Your task to perform on an android device: Add "panasonic triple a" to the cart on bestbuy.com Image 0: 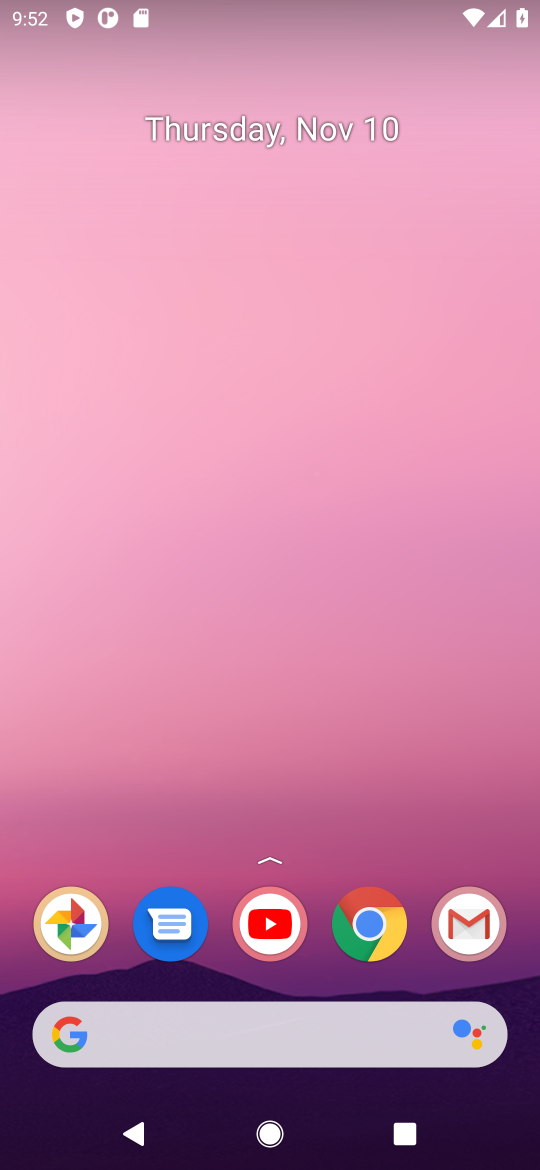
Step 0: click (374, 939)
Your task to perform on an android device: Add "panasonic triple a" to the cart on bestbuy.com Image 1: 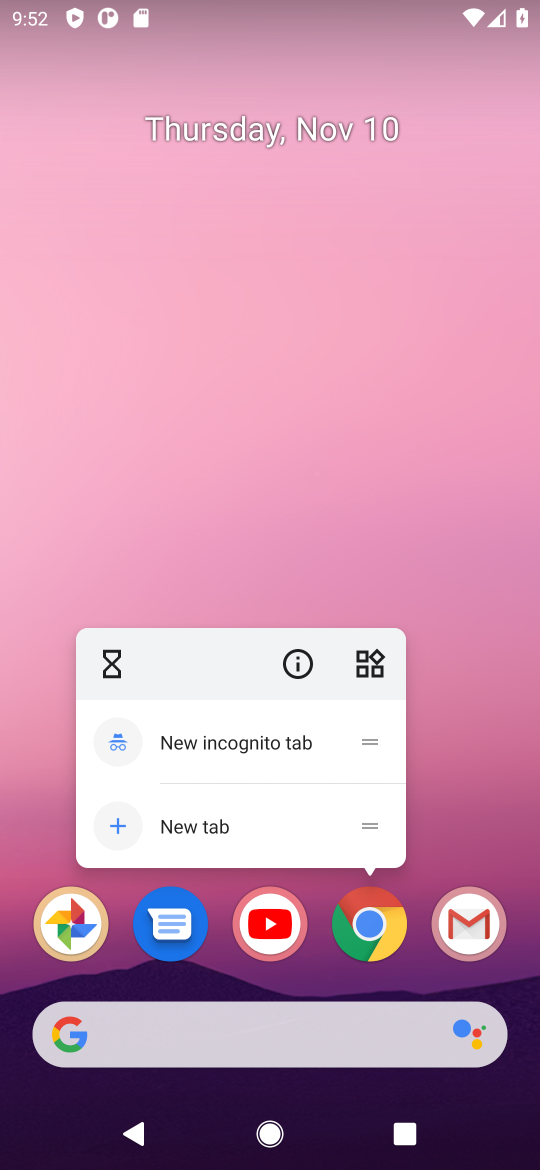
Step 1: click (374, 939)
Your task to perform on an android device: Add "panasonic triple a" to the cart on bestbuy.com Image 2: 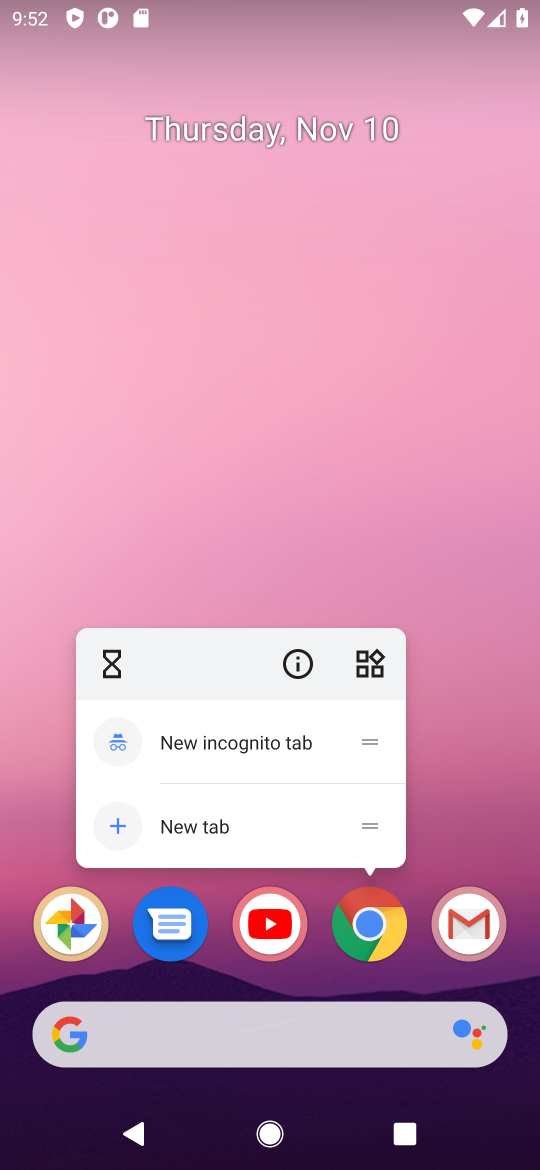
Step 2: click (374, 939)
Your task to perform on an android device: Add "panasonic triple a" to the cart on bestbuy.com Image 3: 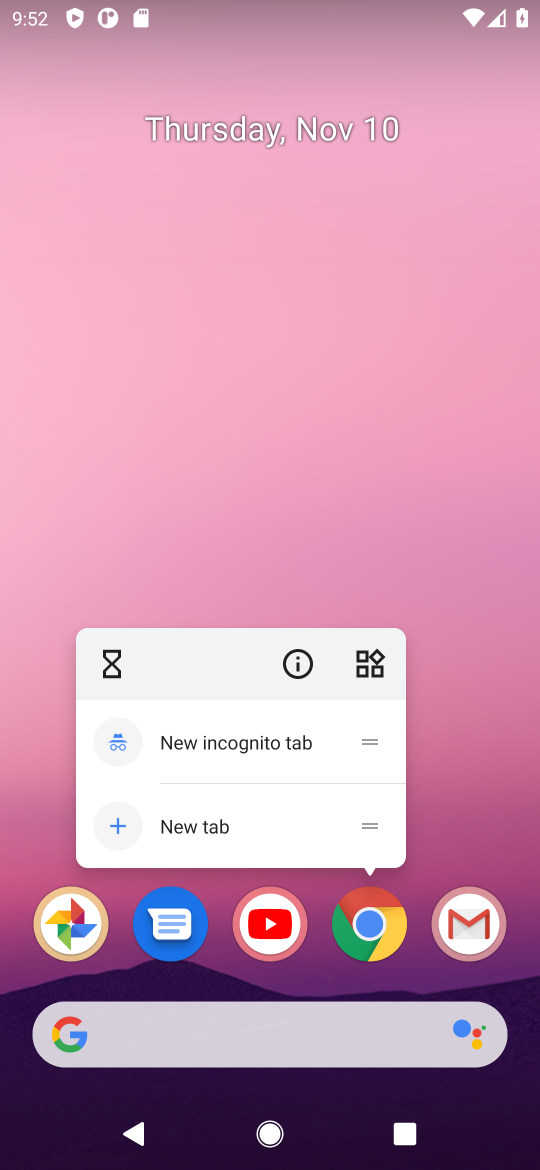
Step 3: click (374, 939)
Your task to perform on an android device: Add "panasonic triple a" to the cart on bestbuy.com Image 4: 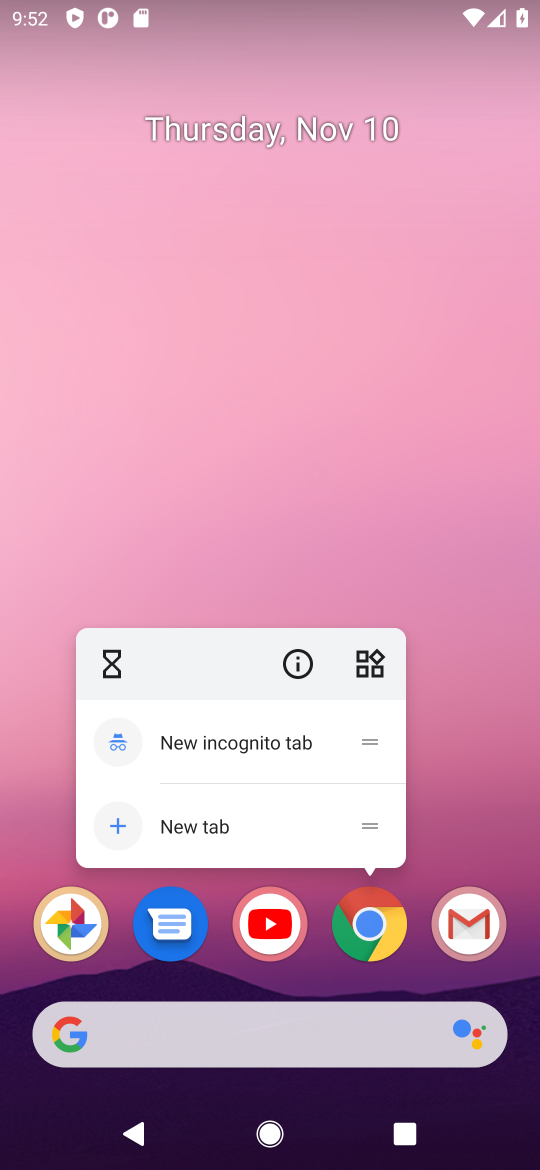
Step 4: click (370, 938)
Your task to perform on an android device: Add "panasonic triple a" to the cart on bestbuy.com Image 5: 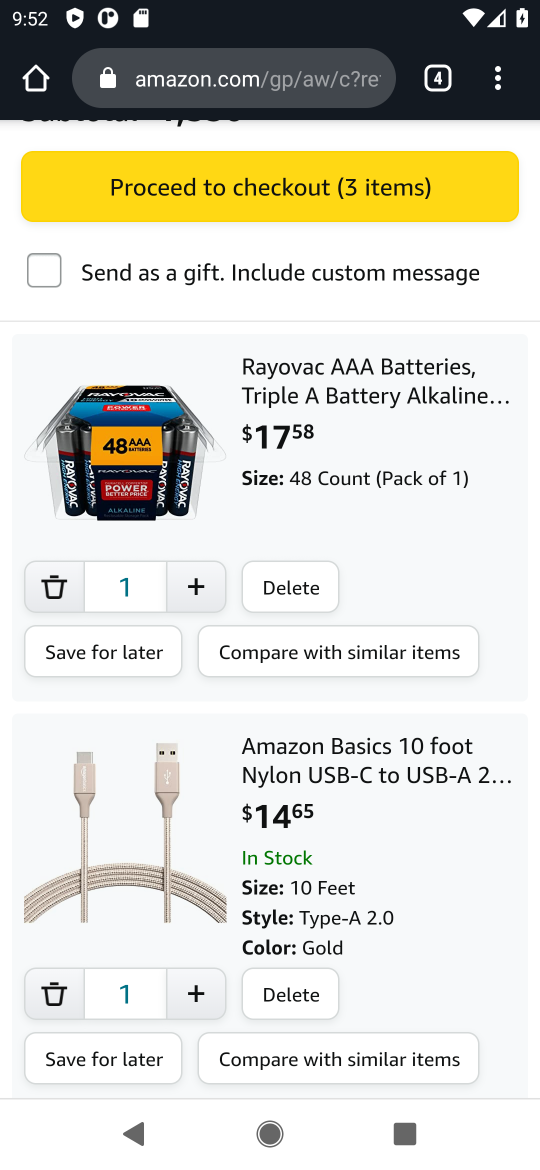
Step 5: click (191, 92)
Your task to perform on an android device: Add "panasonic triple a" to the cart on bestbuy.com Image 6: 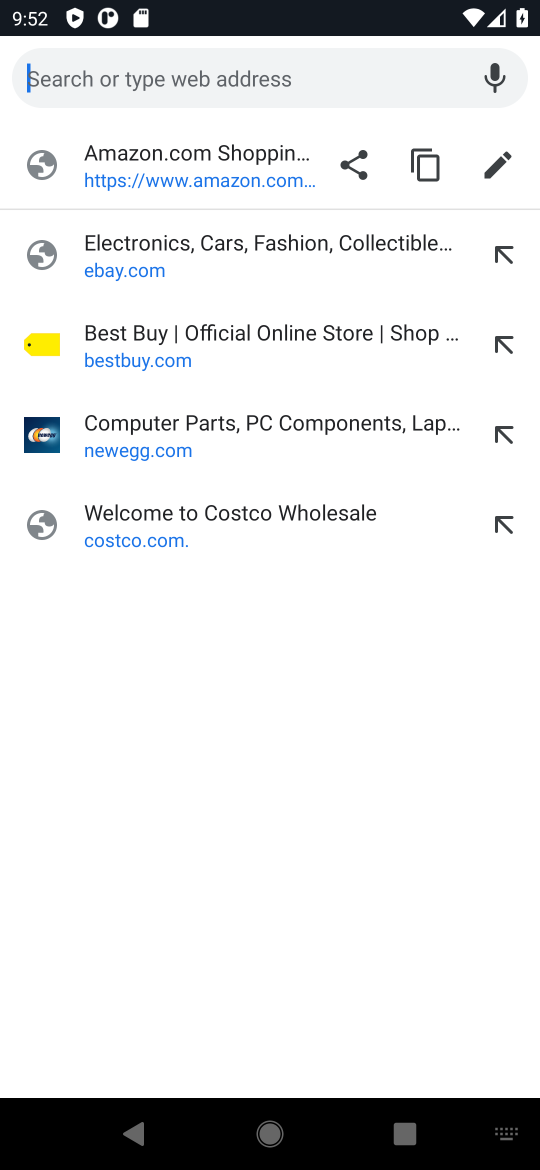
Step 6: click (117, 346)
Your task to perform on an android device: Add "panasonic triple a" to the cart on bestbuy.com Image 7: 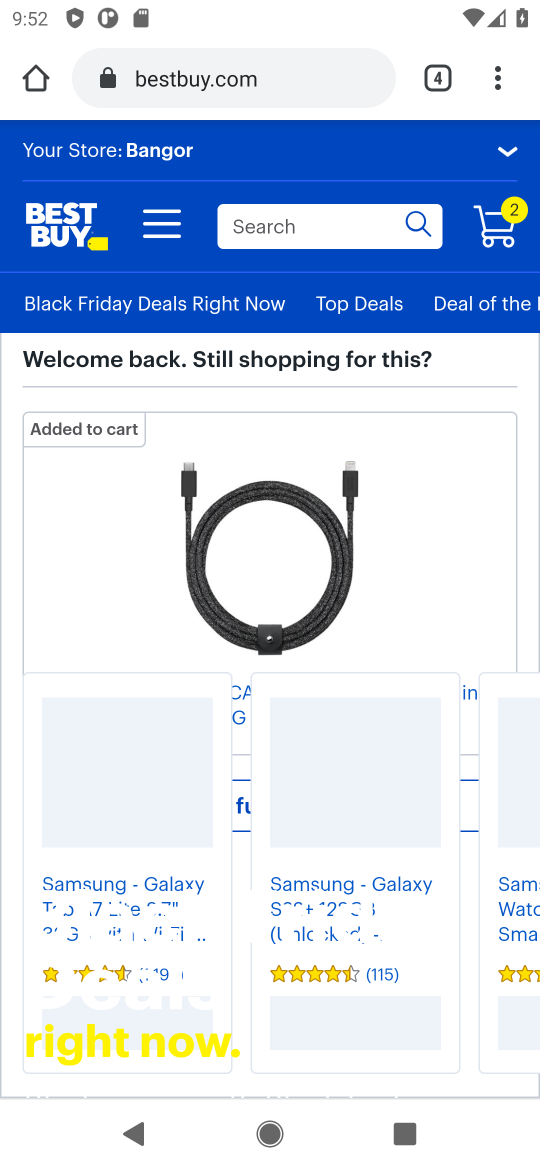
Step 7: click (254, 242)
Your task to perform on an android device: Add "panasonic triple a" to the cart on bestbuy.com Image 8: 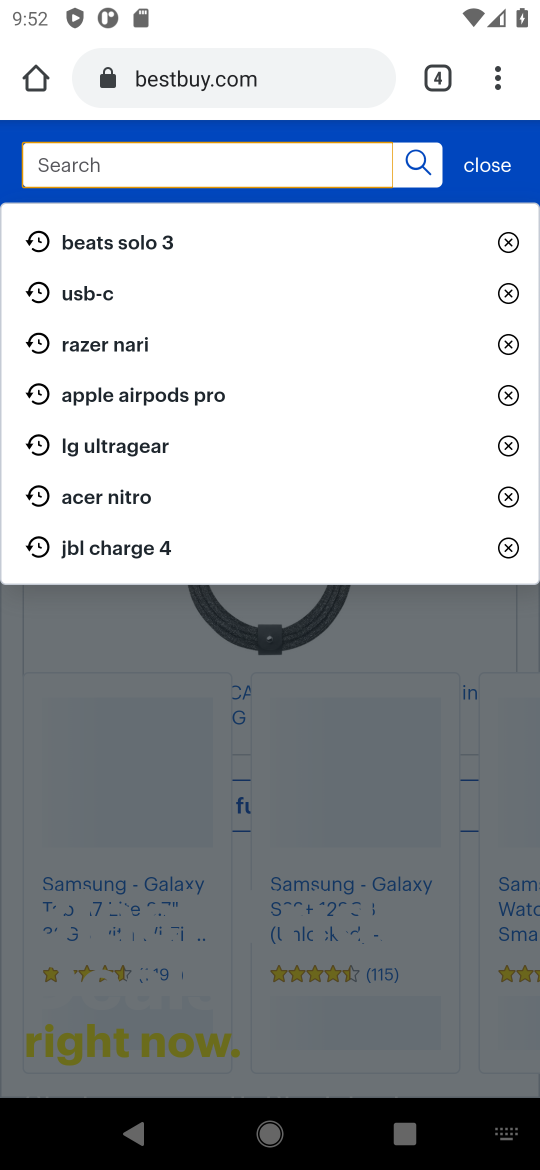
Step 8: type "panasonic triple a"
Your task to perform on an android device: Add "panasonic triple a" to the cart on bestbuy.com Image 9: 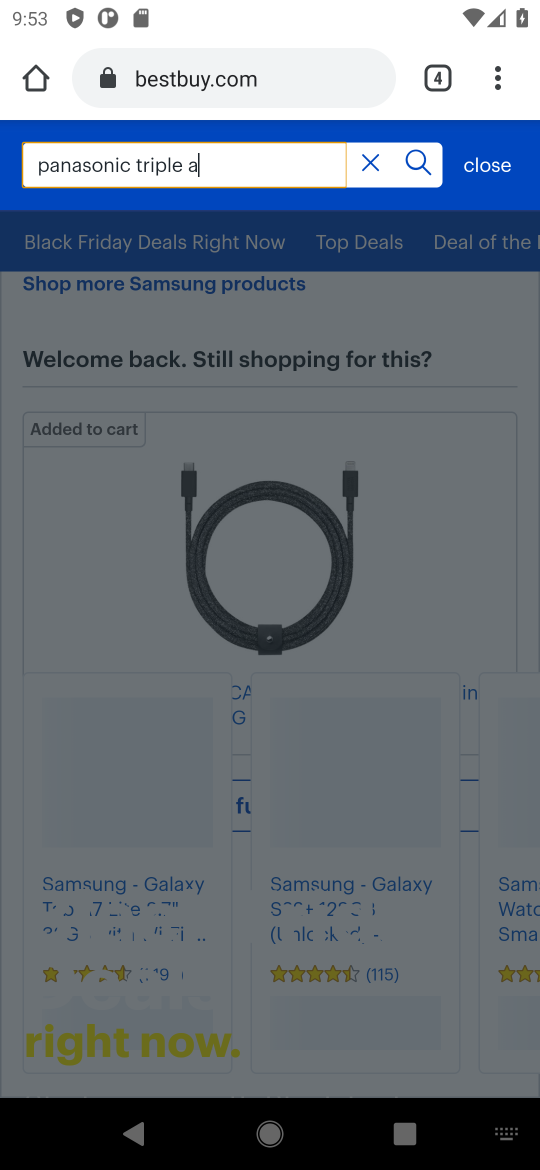
Step 9: click (406, 162)
Your task to perform on an android device: Add "panasonic triple a" to the cart on bestbuy.com Image 10: 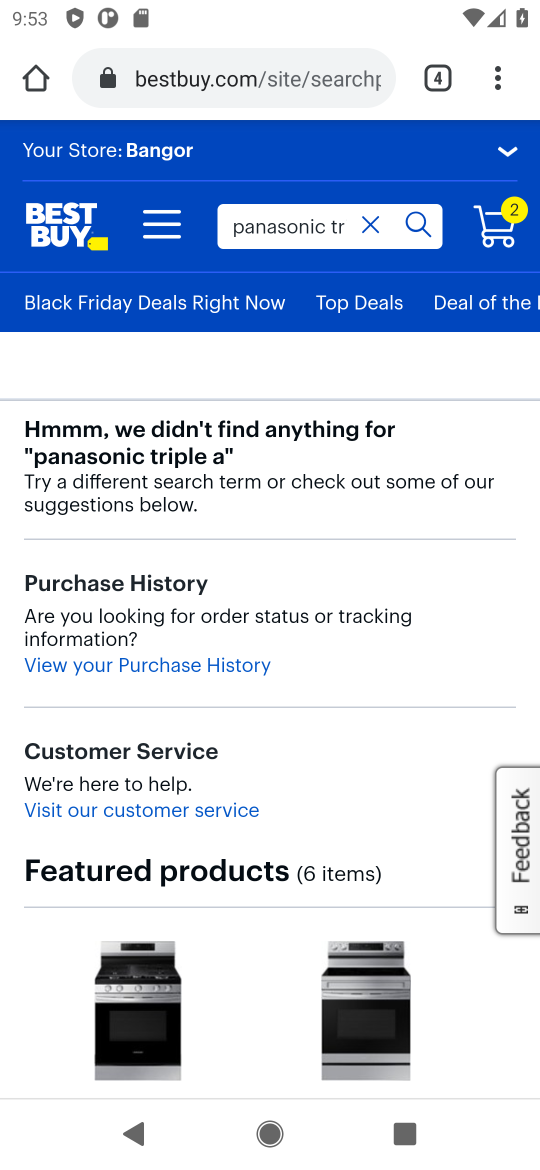
Step 10: task complete